Your task to perform on an android device: Go to notification settings Image 0: 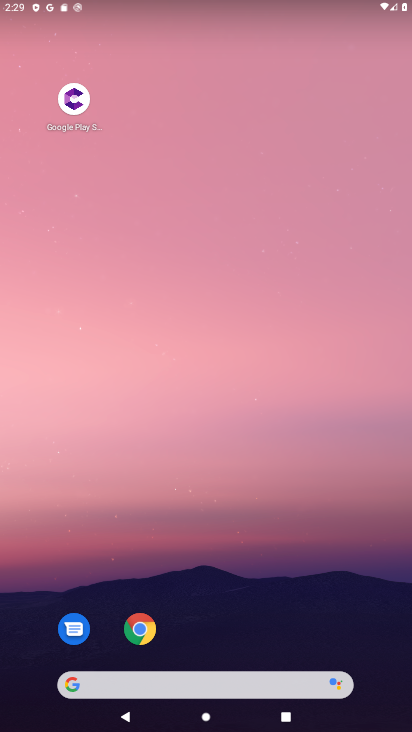
Step 0: drag from (250, 642) to (274, 216)
Your task to perform on an android device: Go to notification settings Image 1: 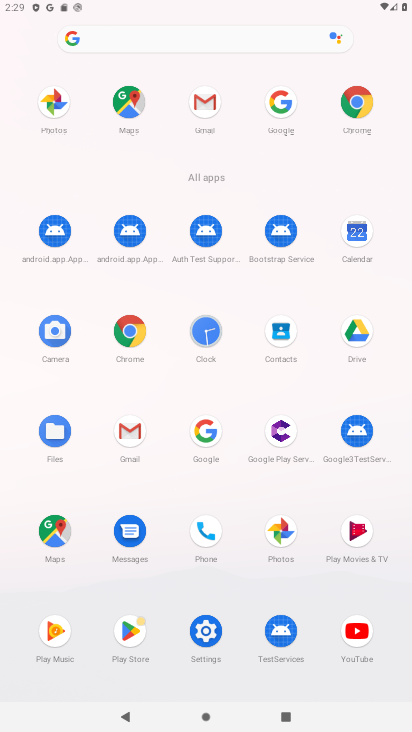
Step 1: drag from (211, 634) to (133, 375)
Your task to perform on an android device: Go to notification settings Image 2: 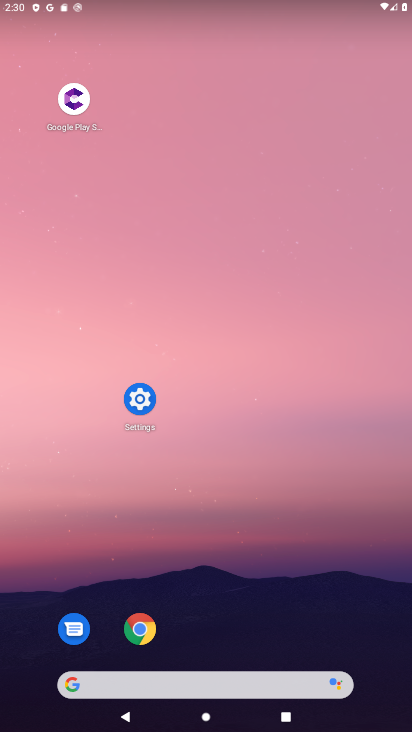
Step 2: click (134, 391)
Your task to perform on an android device: Go to notification settings Image 3: 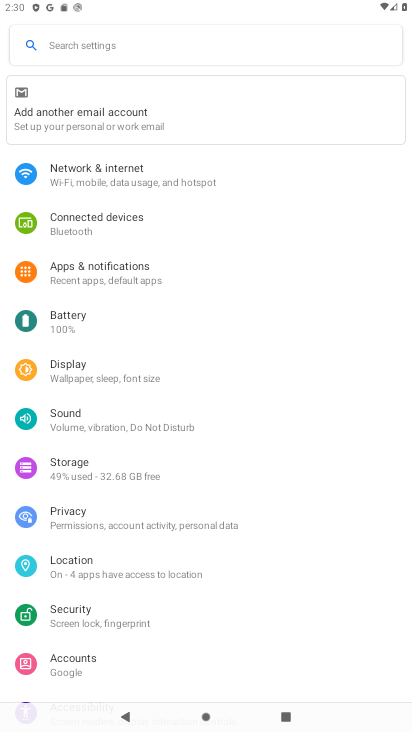
Step 3: click (167, 272)
Your task to perform on an android device: Go to notification settings Image 4: 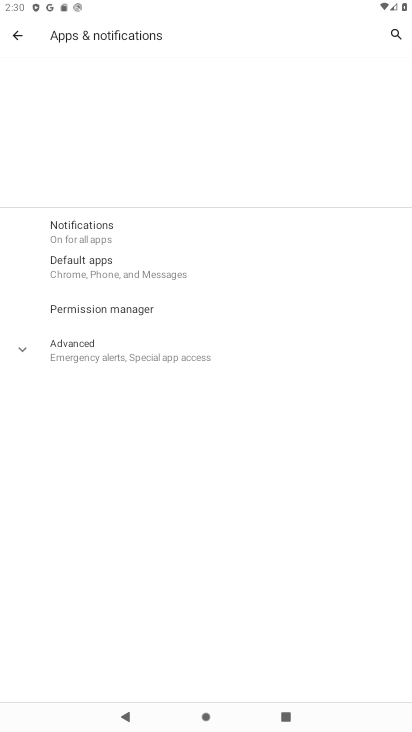
Step 4: task complete